Your task to perform on an android device: uninstall "Yahoo Mail" Image 0: 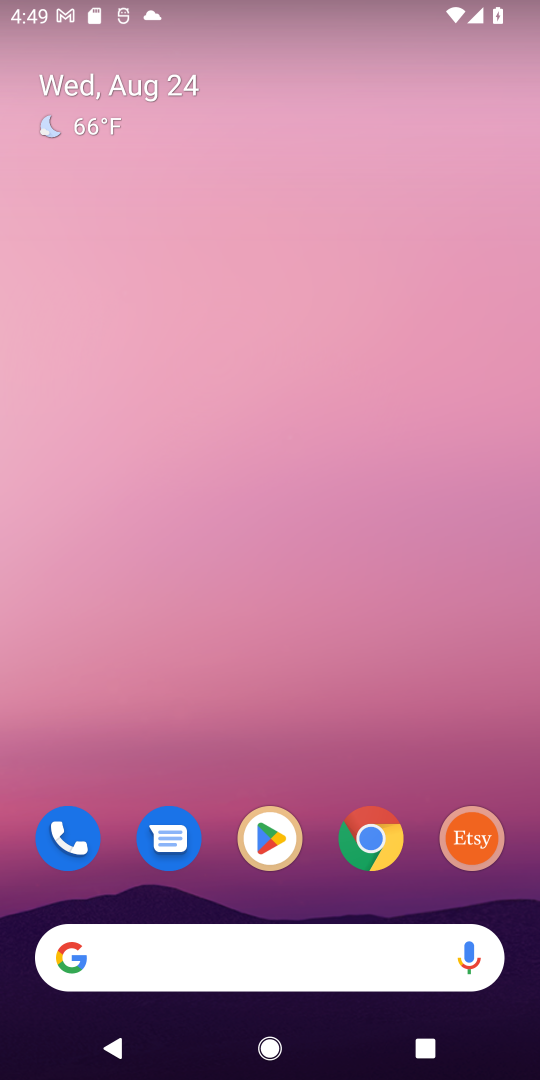
Step 0: press home button
Your task to perform on an android device: uninstall "Yahoo Mail" Image 1: 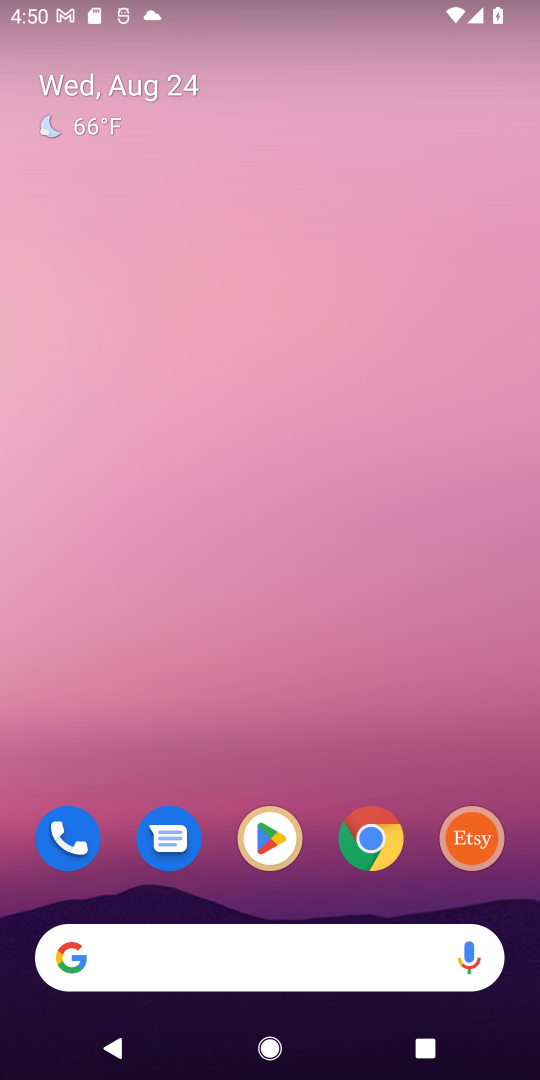
Step 1: click (268, 836)
Your task to perform on an android device: uninstall "Yahoo Mail" Image 2: 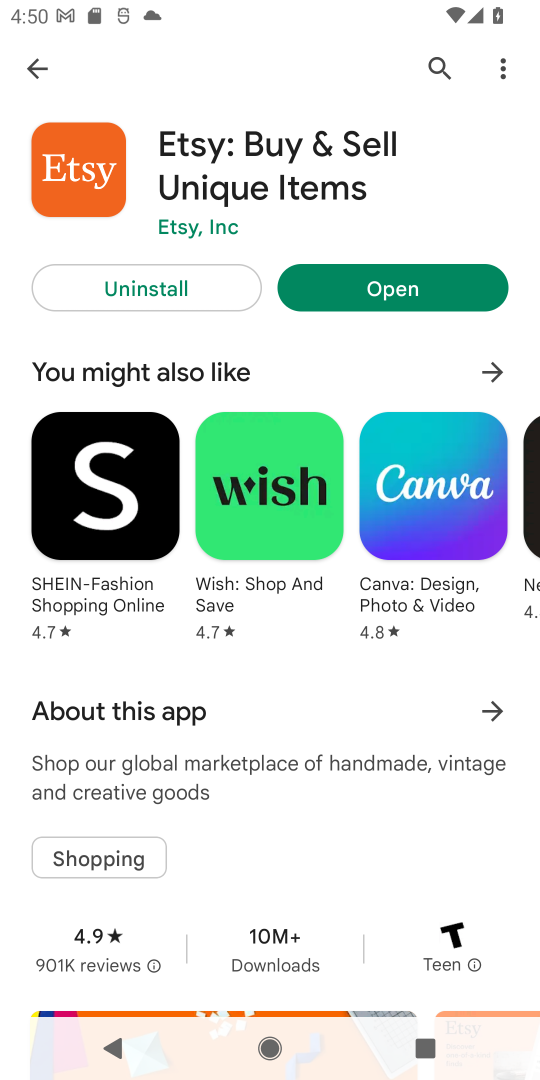
Step 2: click (442, 72)
Your task to perform on an android device: uninstall "Yahoo Mail" Image 3: 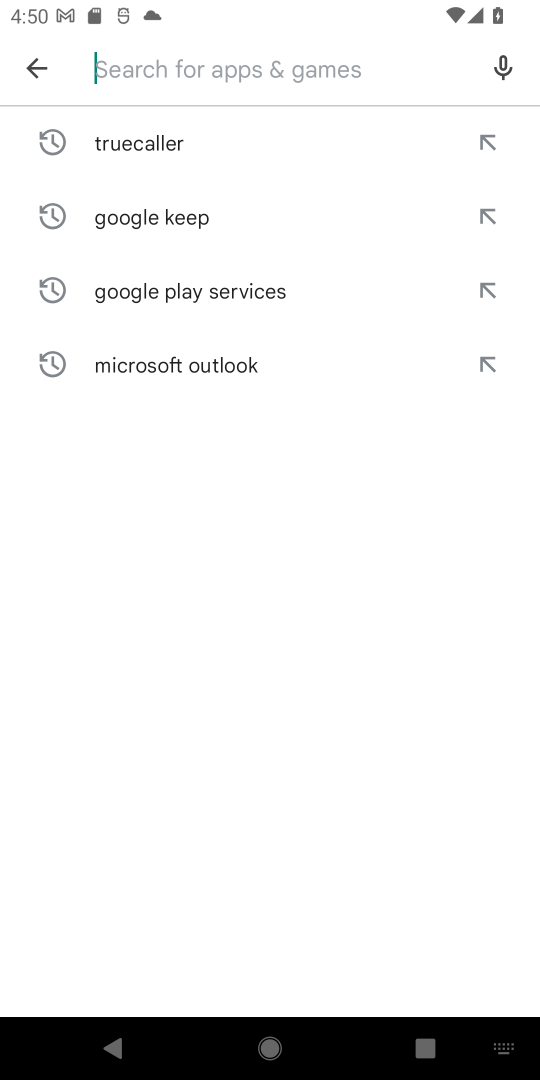
Step 3: type "Yahoo Mail"
Your task to perform on an android device: uninstall "Yahoo Mail" Image 4: 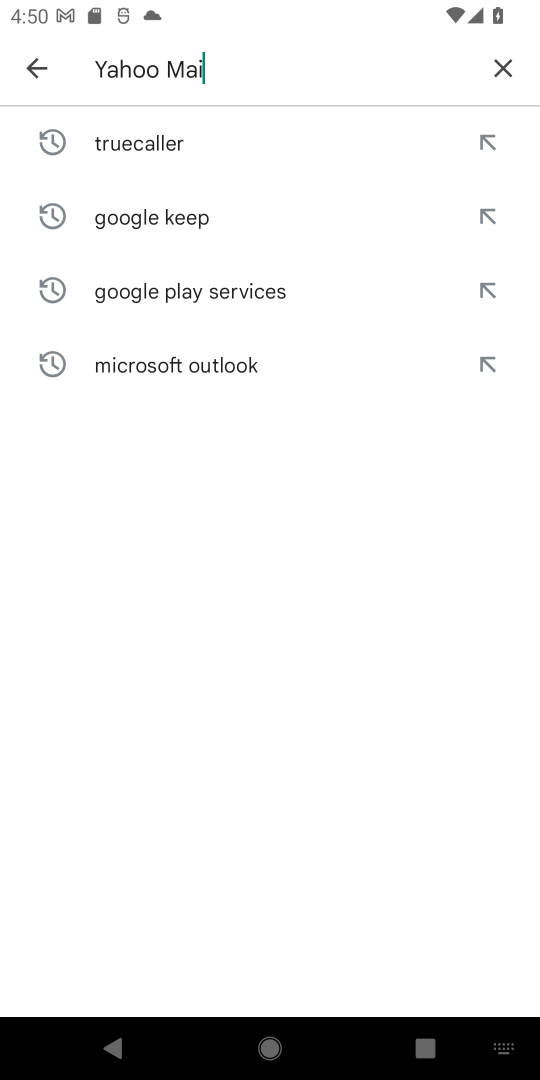
Step 4: type ""
Your task to perform on an android device: uninstall "Yahoo Mail" Image 5: 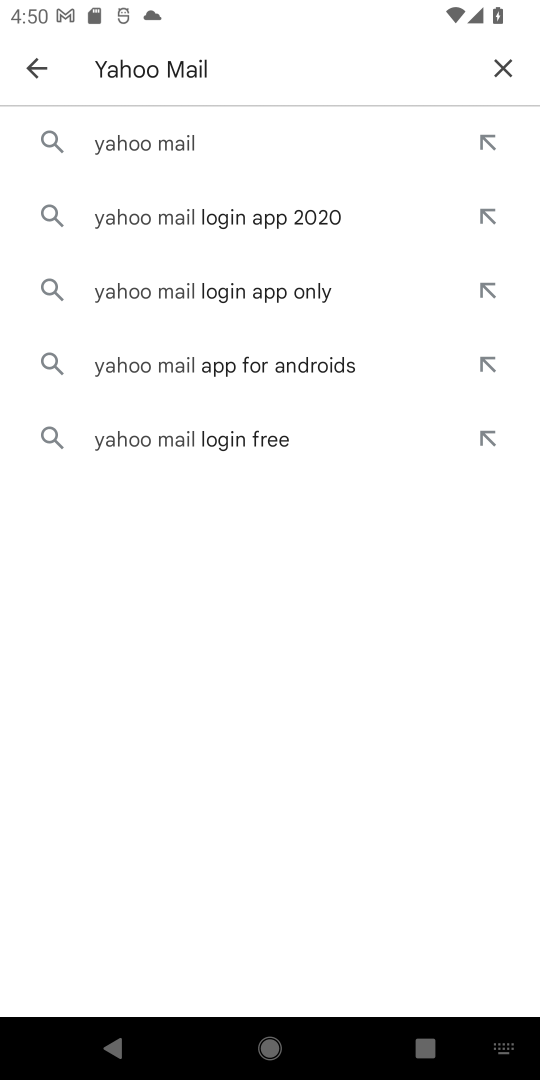
Step 5: click (198, 143)
Your task to perform on an android device: uninstall "Yahoo Mail" Image 6: 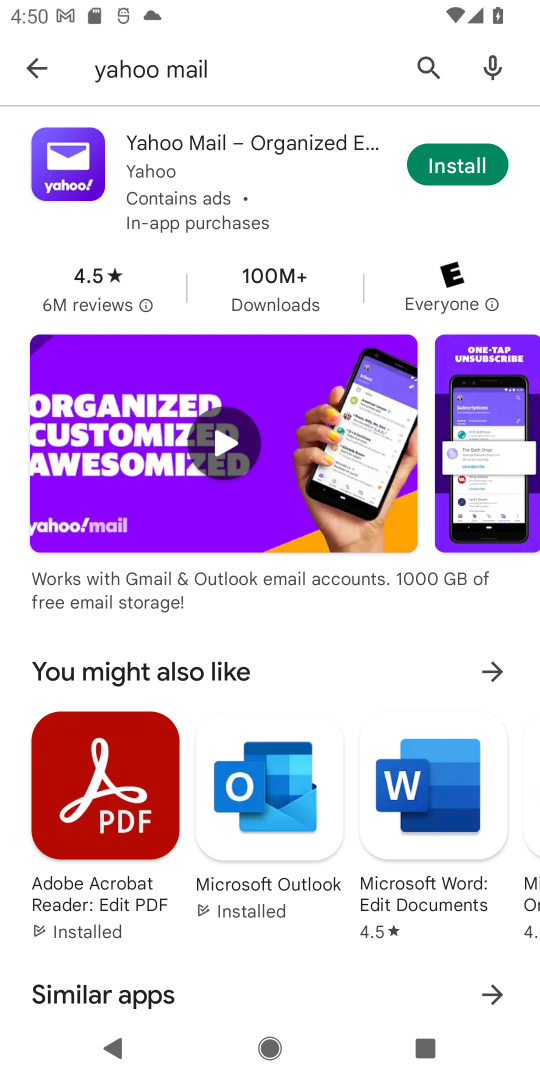
Step 6: task complete